Your task to perform on an android device: Open network settings Image 0: 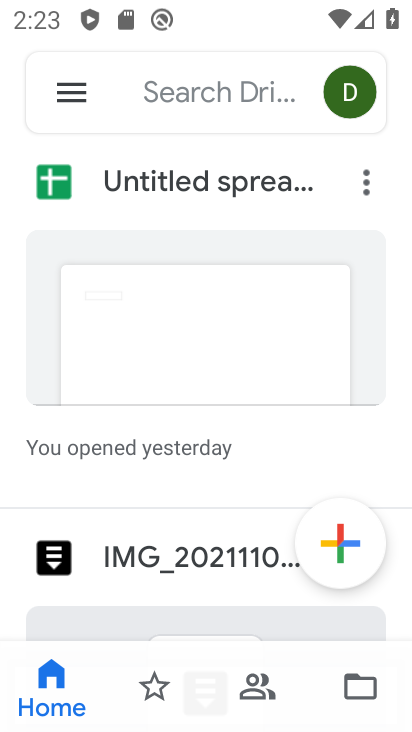
Step 0: press home button
Your task to perform on an android device: Open network settings Image 1: 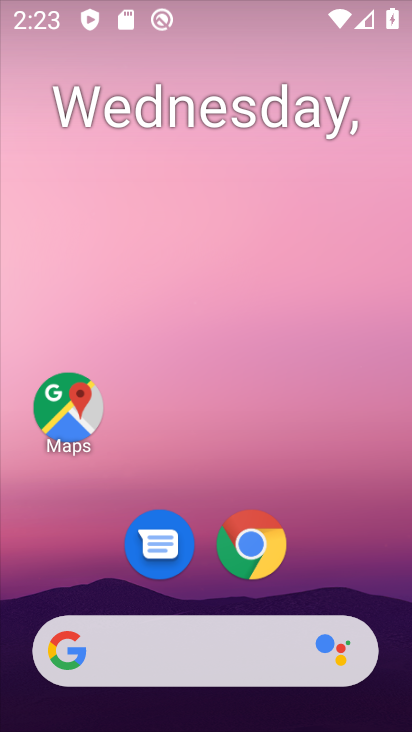
Step 1: drag from (330, 562) to (359, 206)
Your task to perform on an android device: Open network settings Image 2: 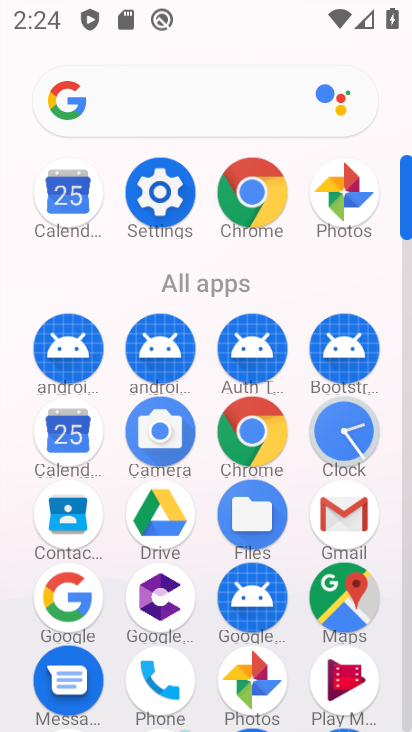
Step 2: click (174, 176)
Your task to perform on an android device: Open network settings Image 3: 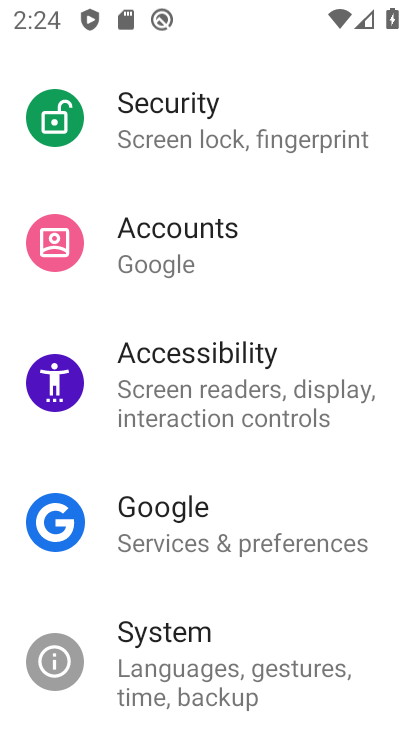
Step 3: drag from (203, 167) to (245, 648)
Your task to perform on an android device: Open network settings Image 4: 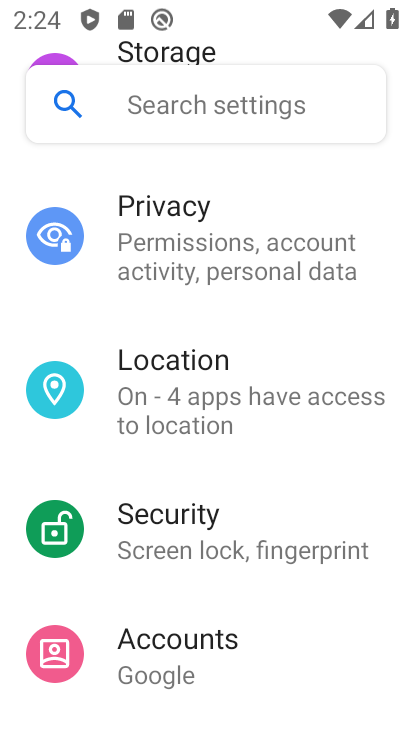
Step 4: drag from (278, 239) to (298, 656)
Your task to perform on an android device: Open network settings Image 5: 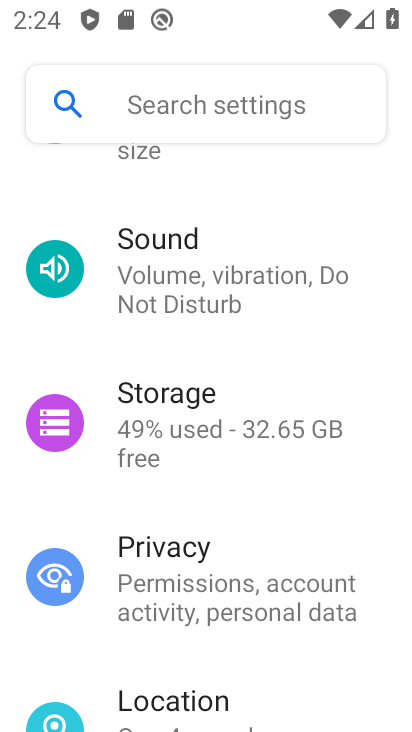
Step 5: drag from (244, 279) to (236, 706)
Your task to perform on an android device: Open network settings Image 6: 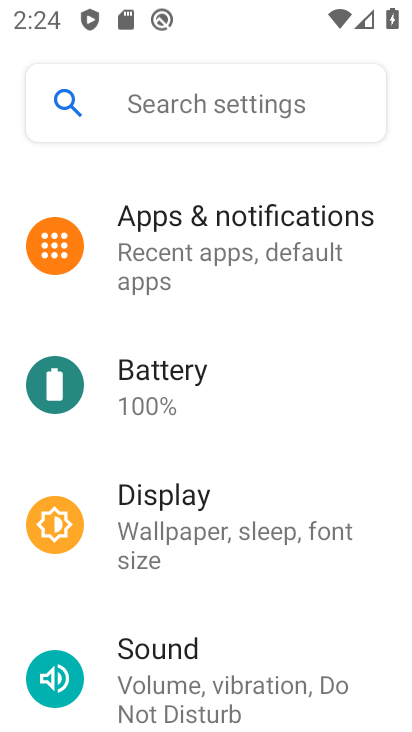
Step 6: drag from (251, 214) to (235, 571)
Your task to perform on an android device: Open network settings Image 7: 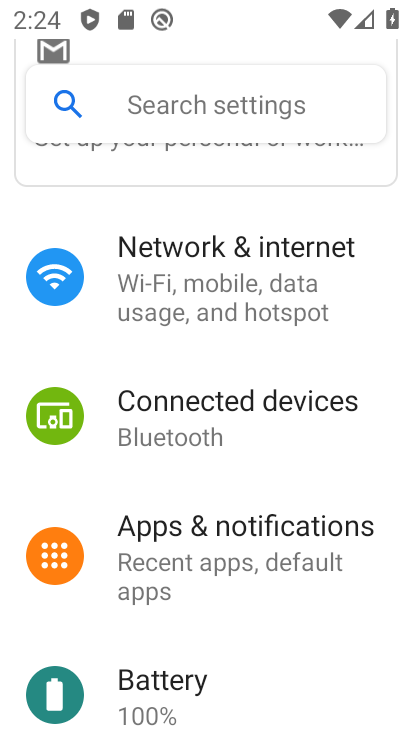
Step 7: drag from (222, 289) to (215, 537)
Your task to perform on an android device: Open network settings Image 8: 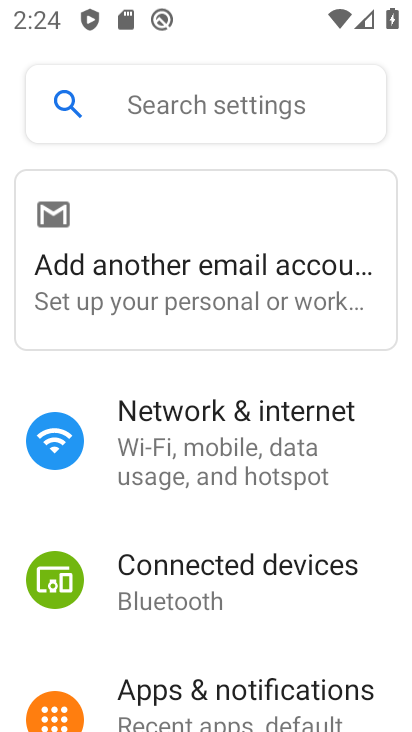
Step 8: click (217, 481)
Your task to perform on an android device: Open network settings Image 9: 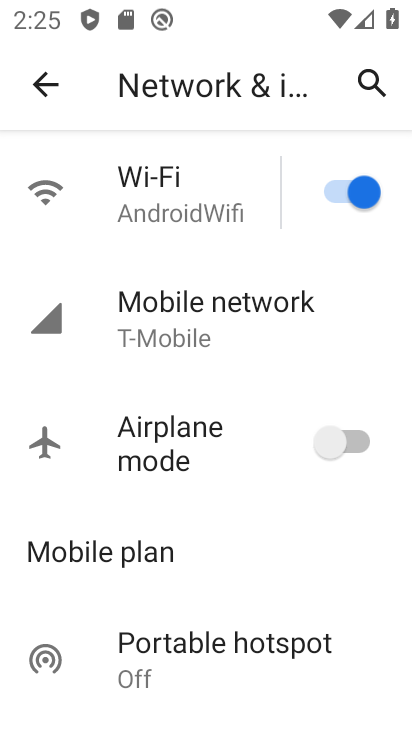
Step 9: click (166, 358)
Your task to perform on an android device: Open network settings Image 10: 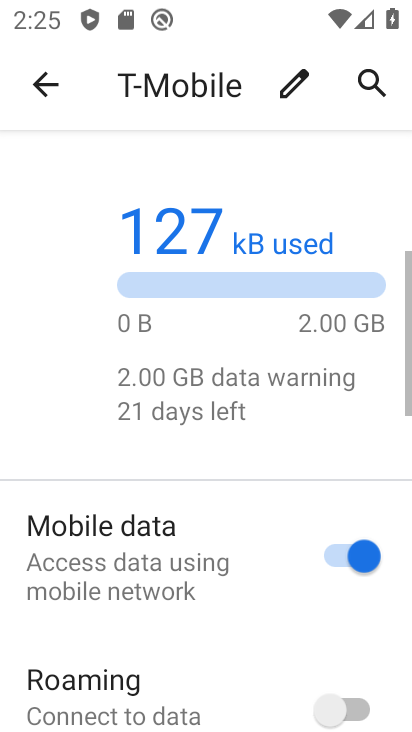
Step 10: task complete